Your task to perform on an android device: Turn off the flashlight Image 0: 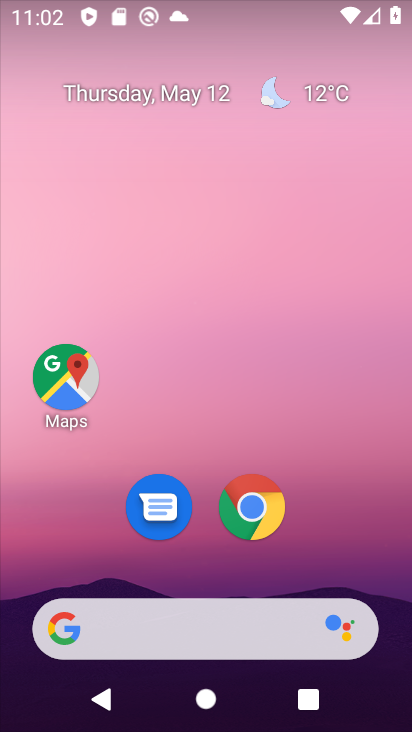
Step 0: drag from (213, 405) to (307, 3)
Your task to perform on an android device: Turn off the flashlight Image 1: 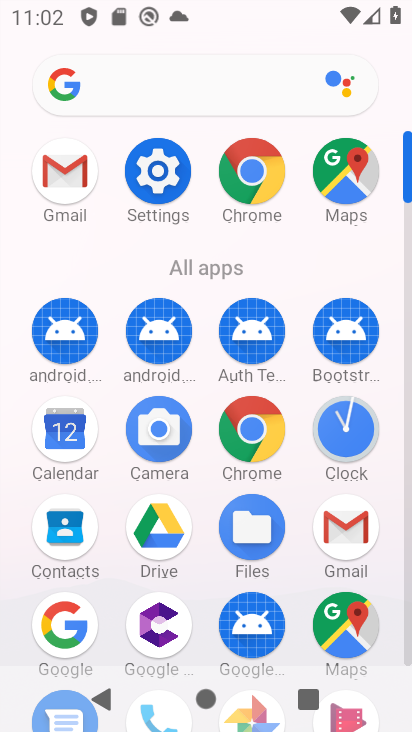
Step 1: click (169, 185)
Your task to perform on an android device: Turn off the flashlight Image 2: 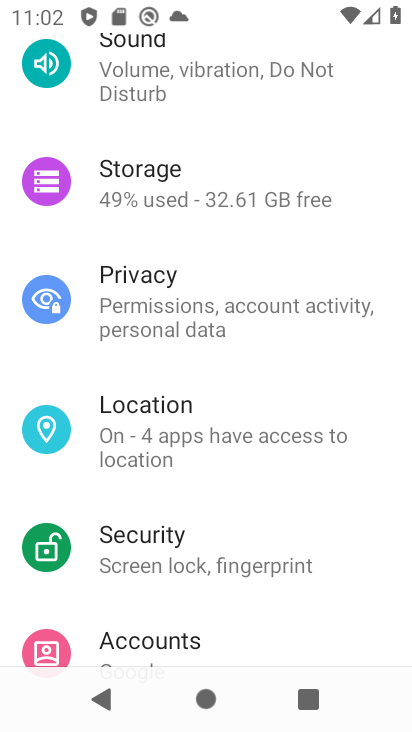
Step 2: drag from (213, 171) to (181, 502)
Your task to perform on an android device: Turn off the flashlight Image 3: 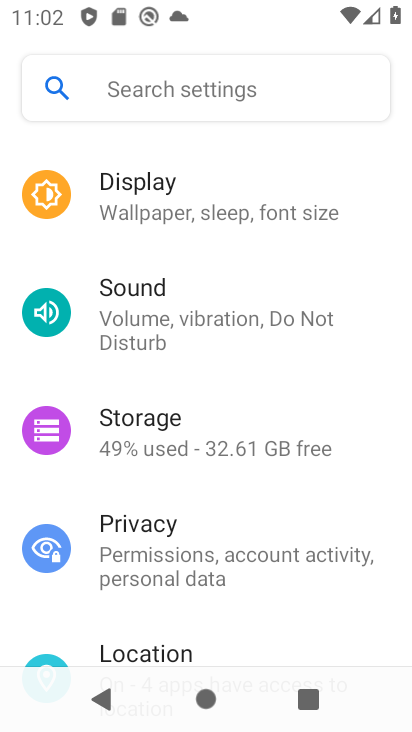
Step 3: click (193, 95)
Your task to perform on an android device: Turn off the flashlight Image 4: 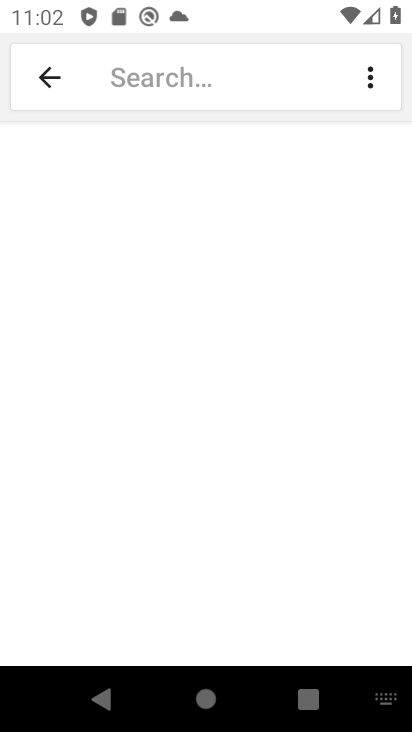
Step 4: type "flashlight"
Your task to perform on an android device: Turn off the flashlight Image 5: 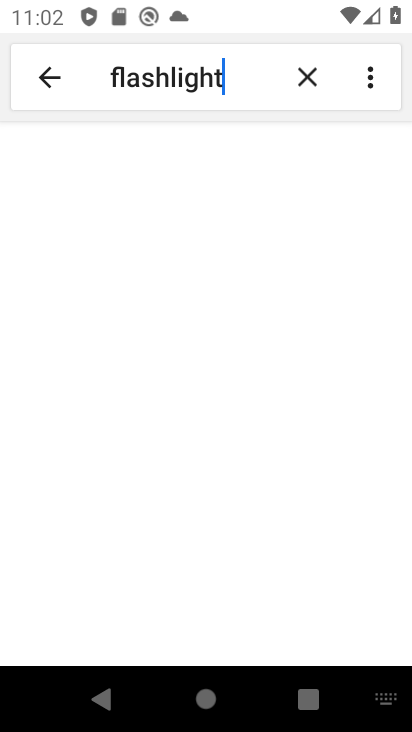
Step 5: click (156, 176)
Your task to perform on an android device: Turn off the flashlight Image 6: 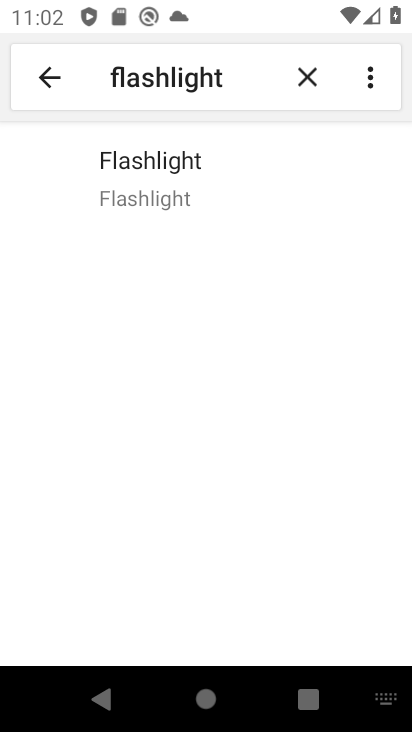
Step 6: click (156, 176)
Your task to perform on an android device: Turn off the flashlight Image 7: 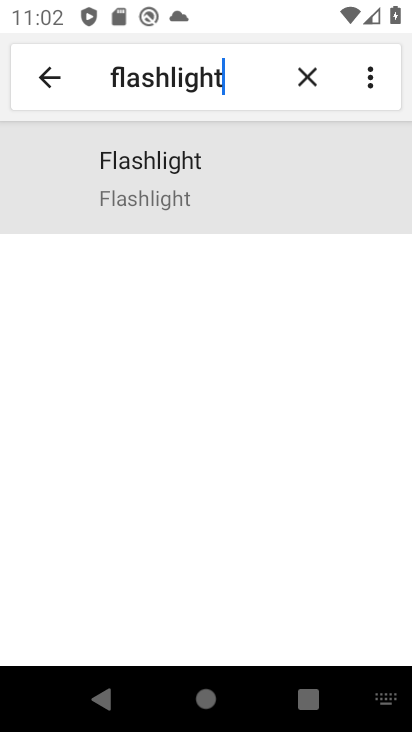
Step 7: click (156, 176)
Your task to perform on an android device: Turn off the flashlight Image 8: 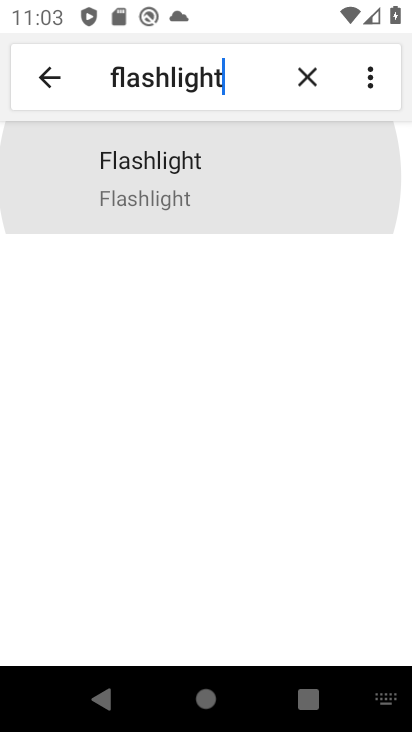
Step 8: click (156, 176)
Your task to perform on an android device: Turn off the flashlight Image 9: 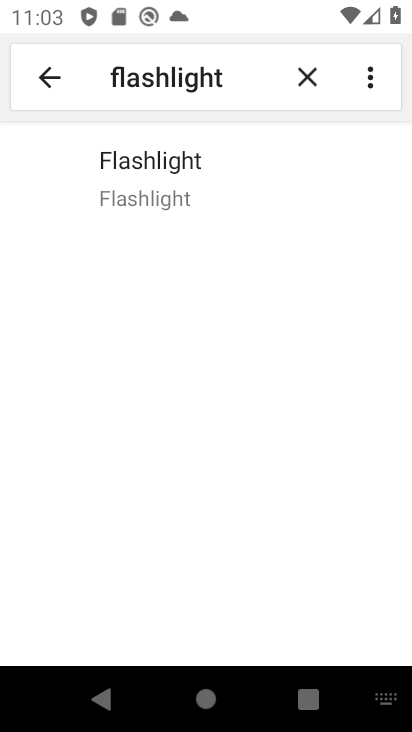
Step 9: task complete